Your task to perform on an android device: change alarm snooze length Image 0: 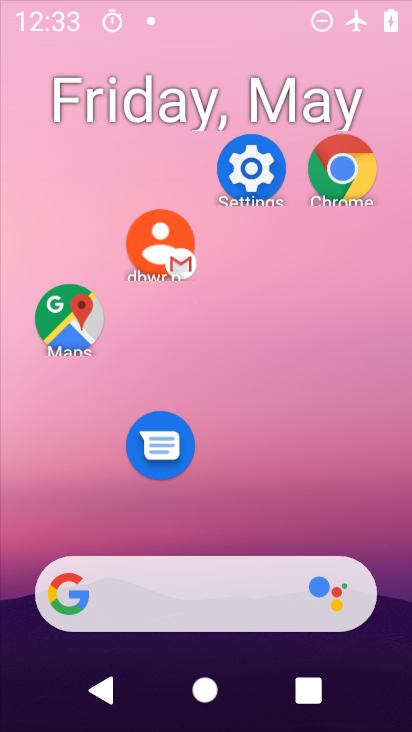
Step 0: drag from (232, 414) to (242, 203)
Your task to perform on an android device: change alarm snooze length Image 1: 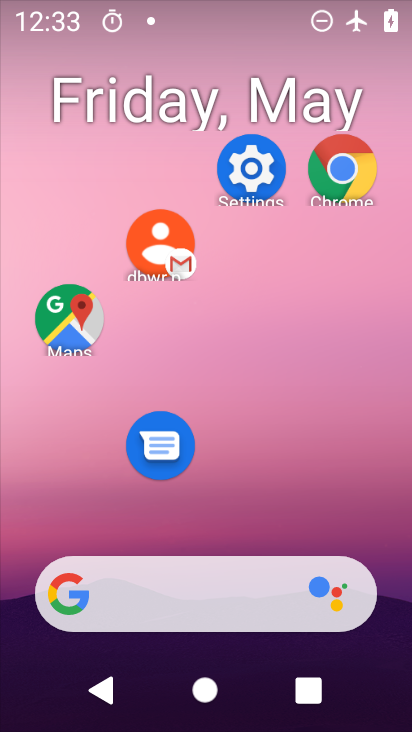
Step 1: drag from (196, 545) to (253, 70)
Your task to perform on an android device: change alarm snooze length Image 2: 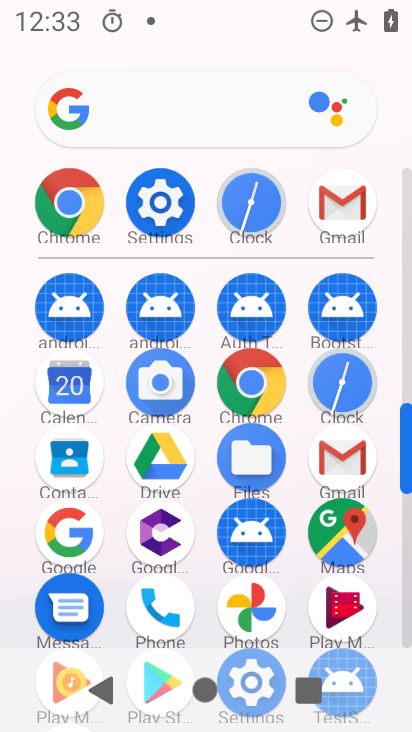
Step 2: click (350, 401)
Your task to perform on an android device: change alarm snooze length Image 3: 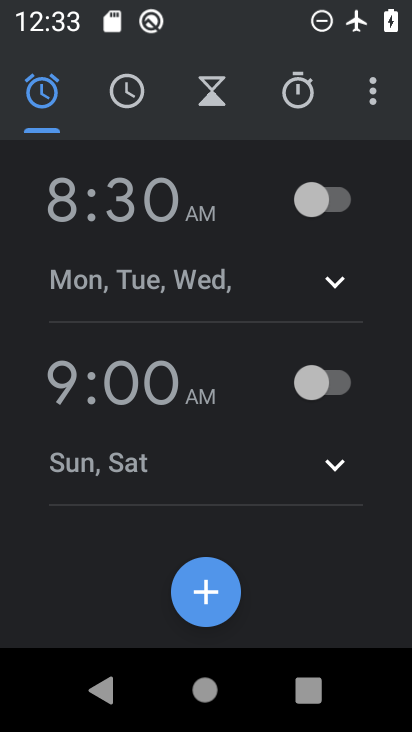
Step 3: click (361, 100)
Your task to perform on an android device: change alarm snooze length Image 4: 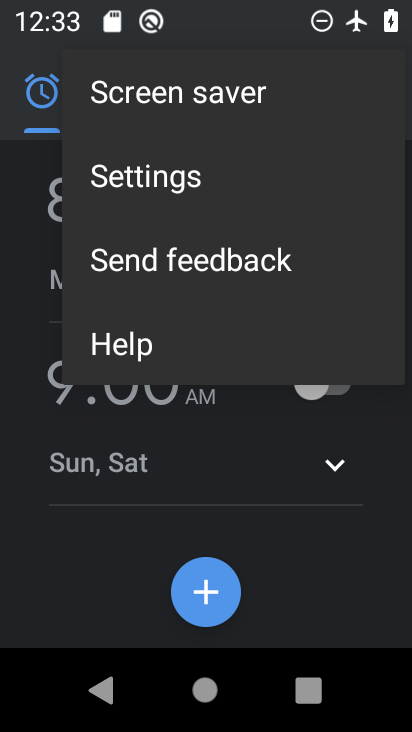
Step 4: click (208, 181)
Your task to perform on an android device: change alarm snooze length Image 5: 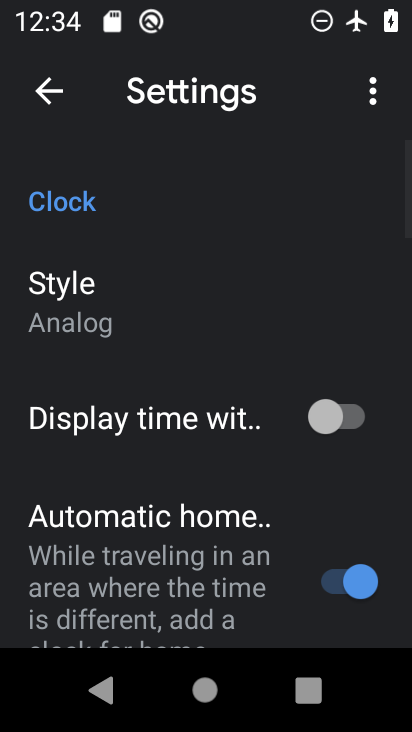
Step 5: click (247, 242)
Your task to perform on an android device: change alarm snooze length Image 6: 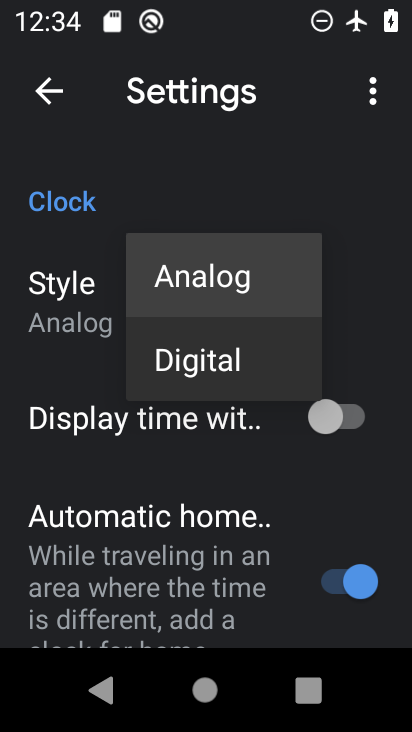
Step 6: drag from (213, 542) to (278, 261)
Your task to perform on an android device: change alarm snooze length Image 7: 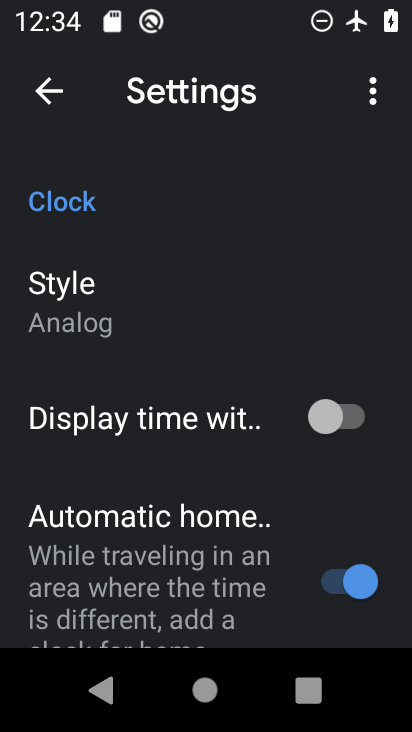
Step 7: drag from (229, 457) to (276, 174)
Your task to perform on an android device: change alarm snooze length Image 8: 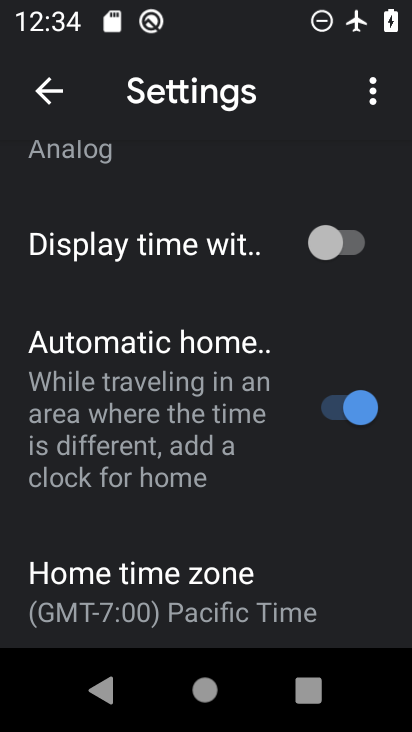
Step 8: drag from (178, 653) to (259, 179)
Your task to perform on an android device: change alarm snooze length Image 9: 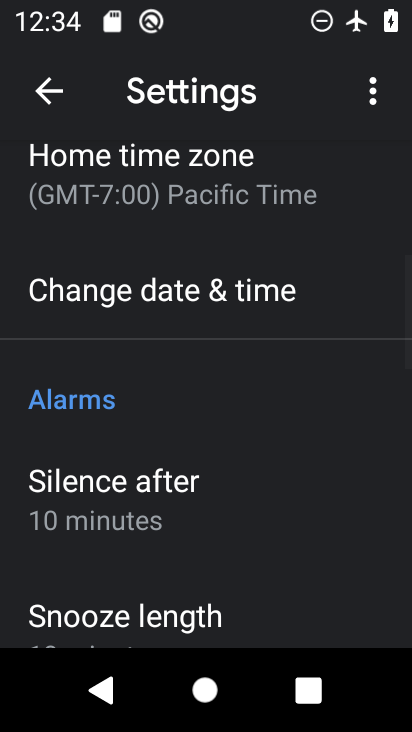
Step 9: drag from (200, 501) to (282, 175)
Your task to perform on an android device: change alarm snooze length Image 10: 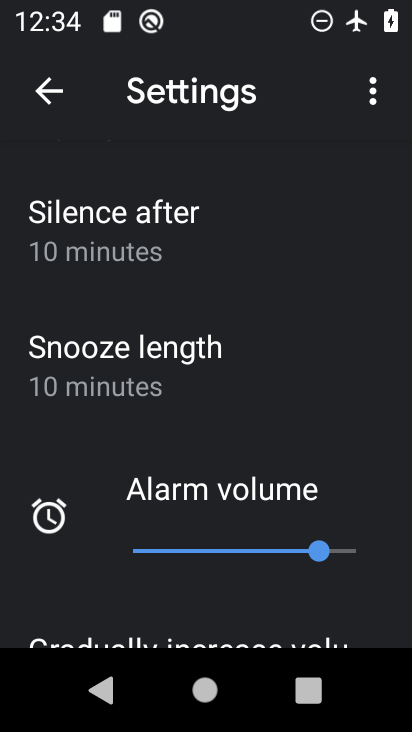
Step 10: click (186, 347)
Your task to perform on an android device: change alarm snooze length Image 11: 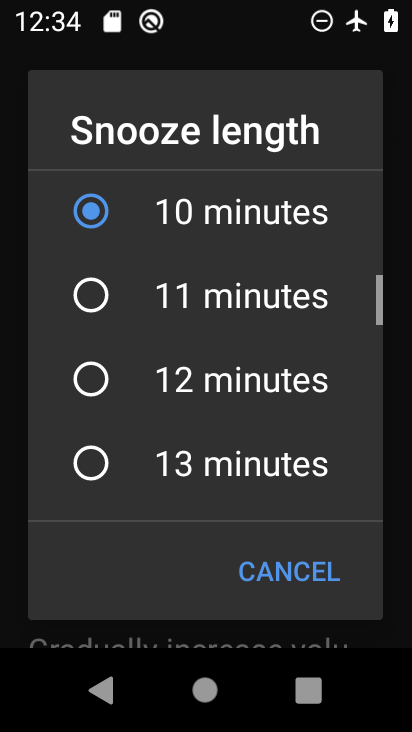
Step 11: drag from (224, 389) to (292, 113)
Your task to perform on an android device: change alarm snooze length Image 12: 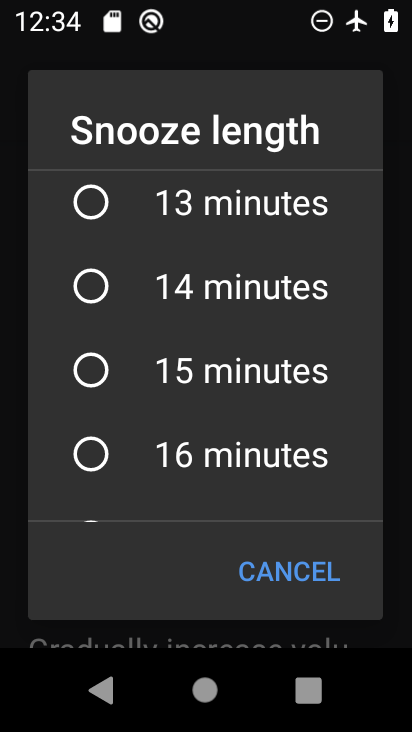
Step 12: click (177, 436)
Your task to perform on an android device: change alarm snooze length Image 13: 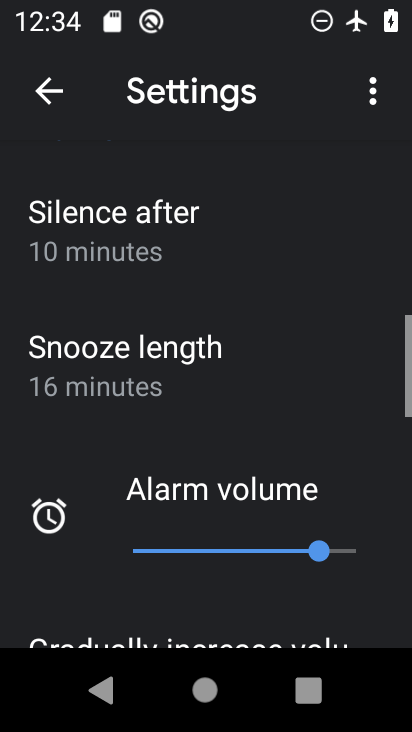
Step 13: task complete